Your task to perform on an android device: Do I have any events today? Image 0: 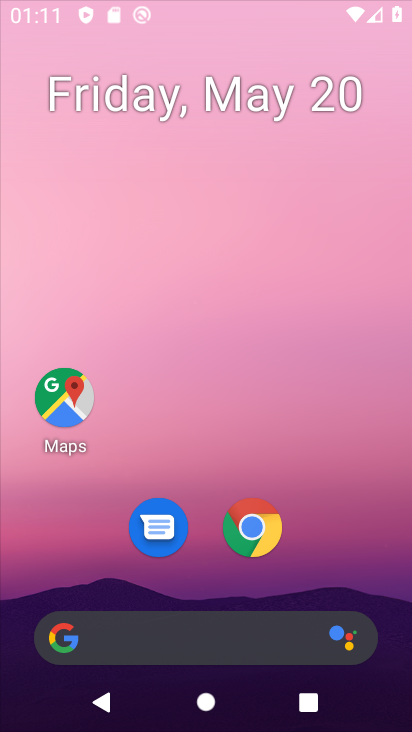
Step 0: click (128, 71)
Your task to perform on an android device: Do I have any events today? Image 1: 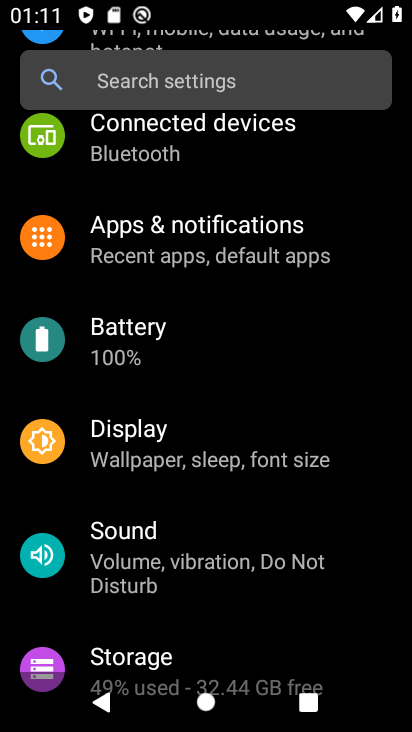
Step 1: press home button
Your task to perform on an android device: Do I have any events today? Image 2: 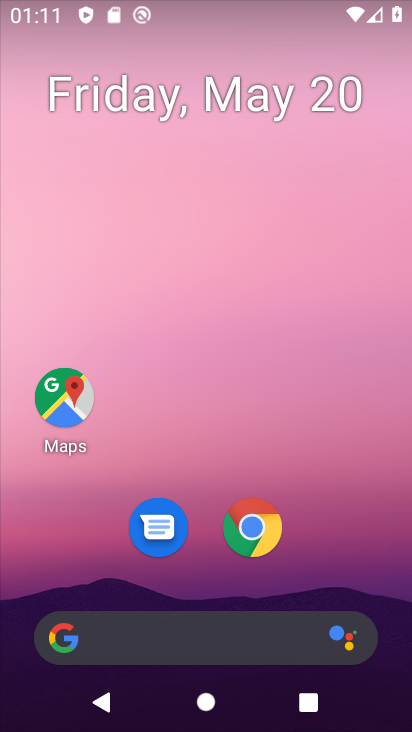
Step 2: drag from (72, 295) to (411, 330)
Your task to perform on an android device: Do I have any events today? Image 3: 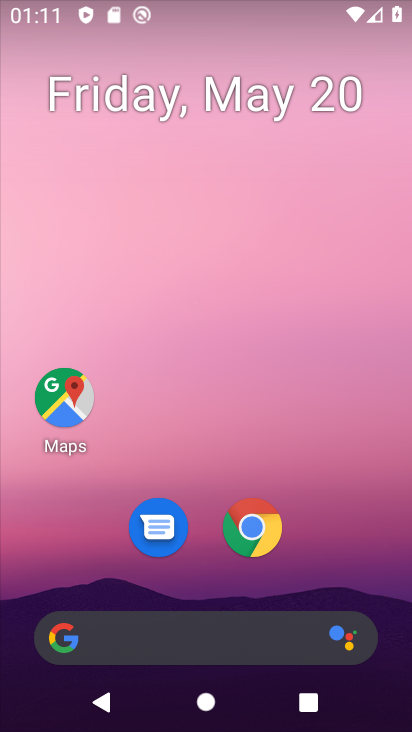
Step 3: drag from (9, 282) to (407, 334)
Your task to perform on an android device: Do I have any events today? Image 4: 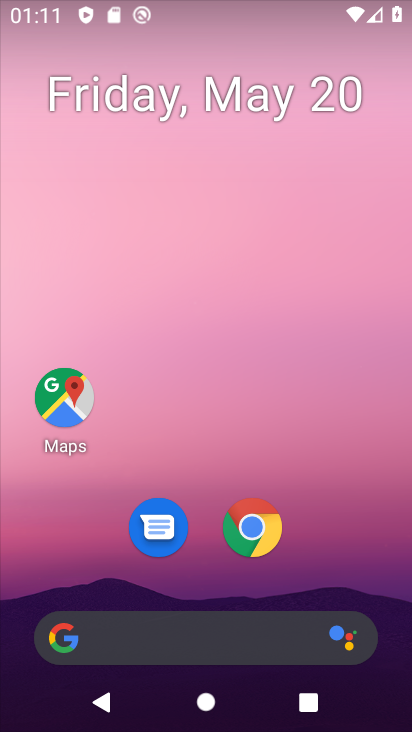
Step 4: drag from (211, 578) to (242, 21)
Your task to perform on an android device: Do I have any events today? Image 5: 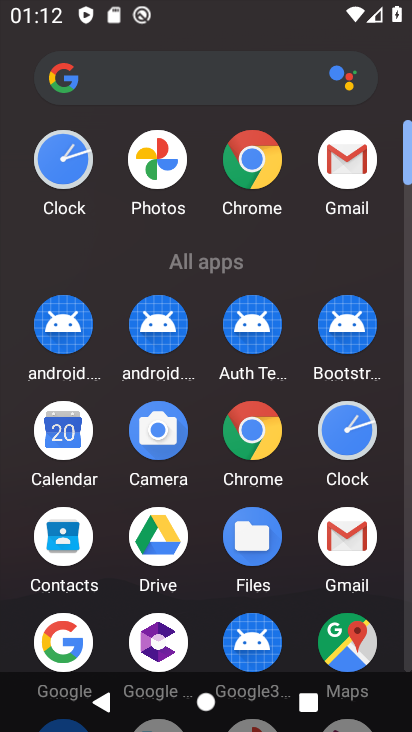
Step 5: click (64, 433)
Your task to perform on an android device: Do I have any events today? Image 6: 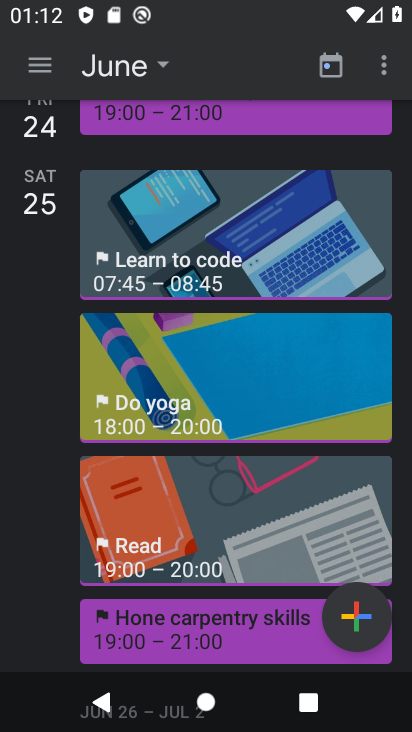
Step 6: click (168, 67)
Your task to perform on an android device: Do I have any events today? Image 7: 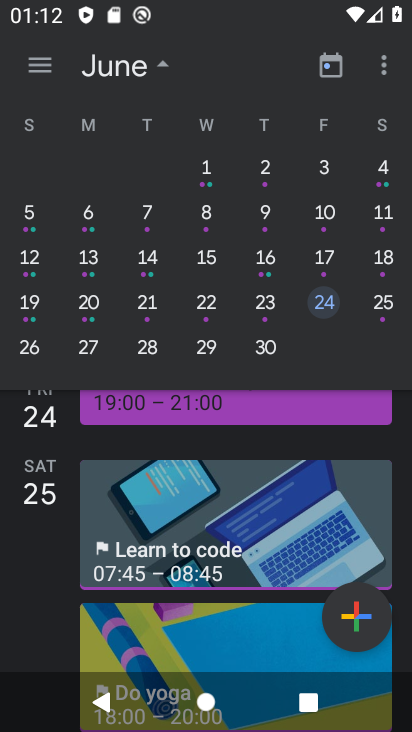
Step 7: drag from (74, 229) to (396, 295)
Your task to perform on an android device: Do I have any events today? Image 8: 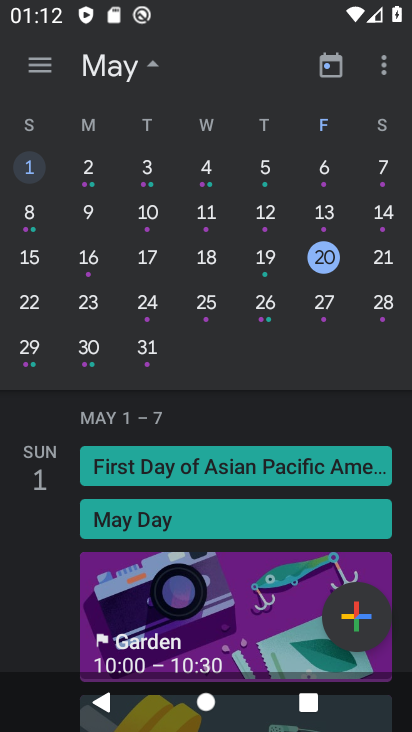
Step 8: click (317, 246)
Your task to perform on an android device: Do I have any events today? Image 9: 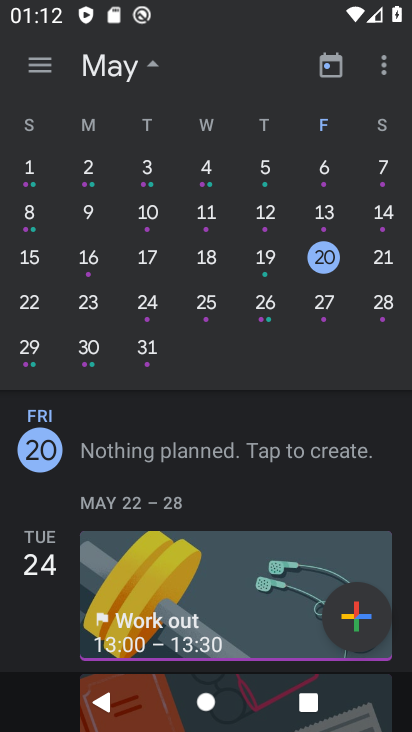
Step 9: click (94, 455)
Your task to perform on an android device: Do I have any events today? Image 10: 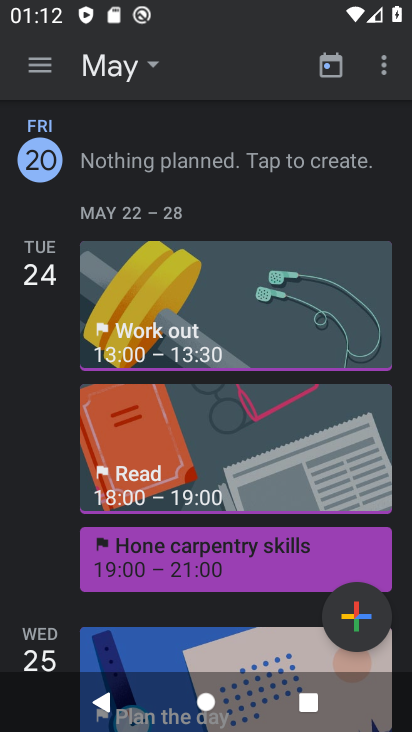
Step 10: click (63, 171)
Your task to perform on an android device: Do I have any events today? Image 11: 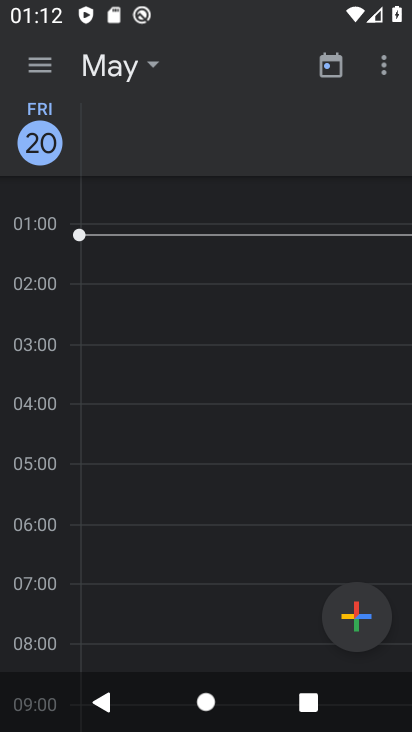
Step 11: task complete